Your task to perform on an android device: Show me productivity apps on the Play Store Image 0: 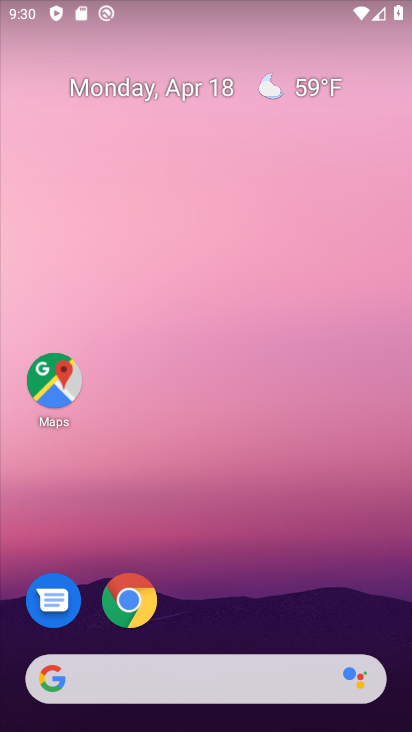
Step 0: drag from (270, 625) to (261, 121)
Your task to perform on an android device: Show me productivity apps on the Play Store Image 1: 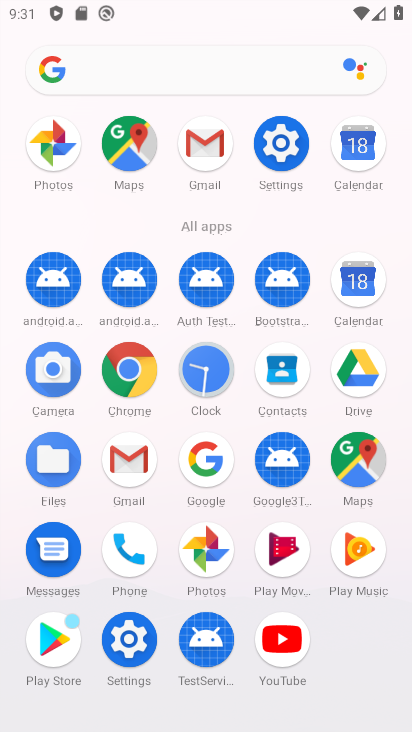
Step 1: click (50, 637)
Your task to perform on an android device: Show me productivity apps on the Play Store Image 2: 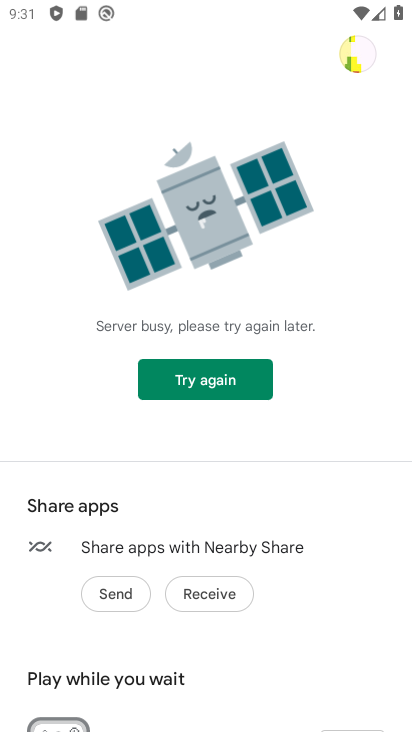
Step 2: click (206, 375)
Your task to perform on an android device: Show me productivity apps on the Play Store Image 3: 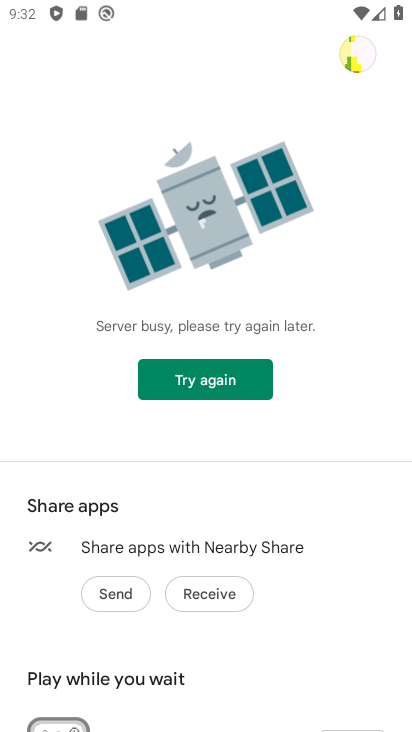
Step 3: click (186, 393)
Your task to perform on an android device: Show me productivity apps on the Play Store Image 4: 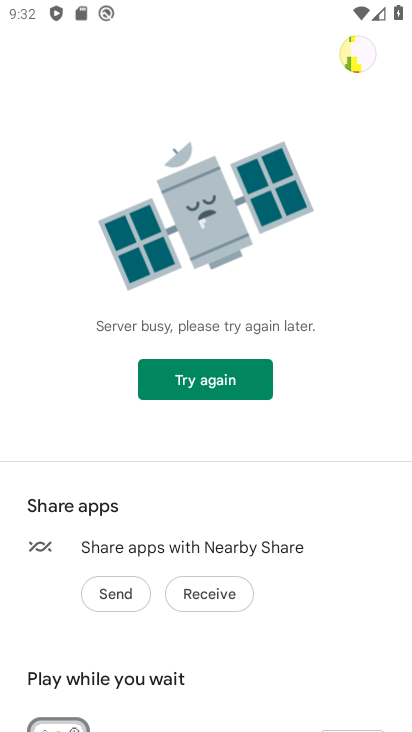
Step 4: click (215, 382)
Your task to perform on an android device: Show me productivity apps on the Play Store Image 5: 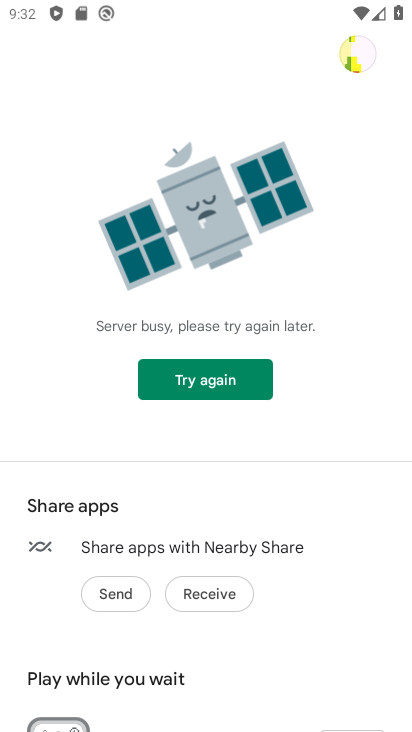
Step 5: task complete